Your task to perform on an android device: toggle data saver in the chrome app Image 0: 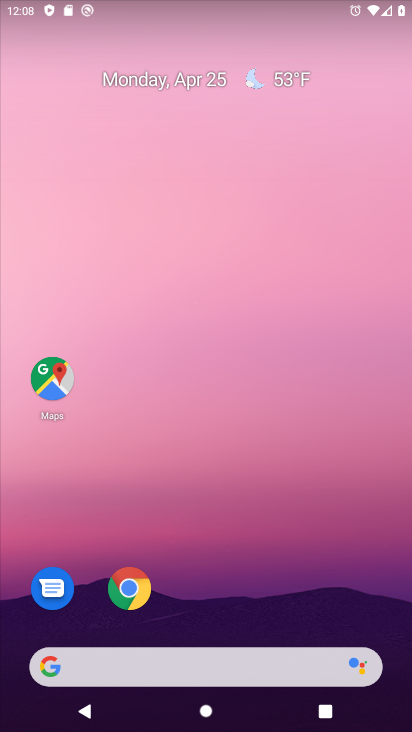
Step 0: drag from (301, 600) to (257, 249)
Your task to perform on an android device: toggle data saver in the chrome app Image 1: 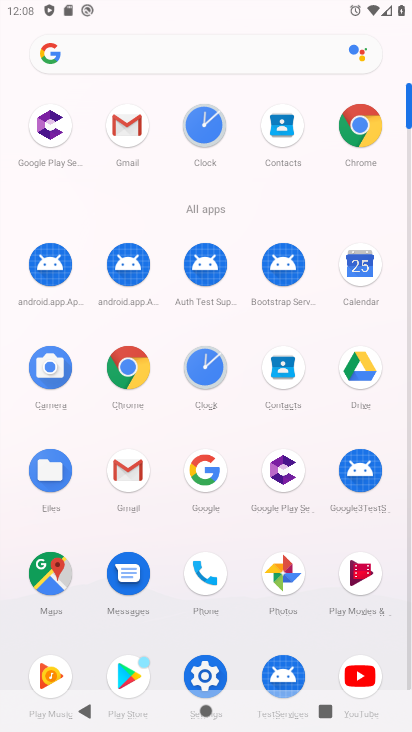
Step 1: click (373, 121)
Your task to perform on an android device: toggle data saver in the chrome app Image 2: 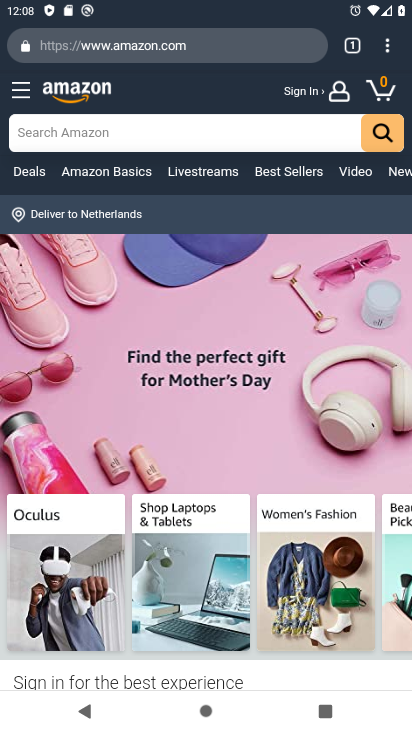
Step 2: drag from (388, 65) to (222, 595)
Your task to perform on an android device: toggle data saver in the chrome app Image 3: 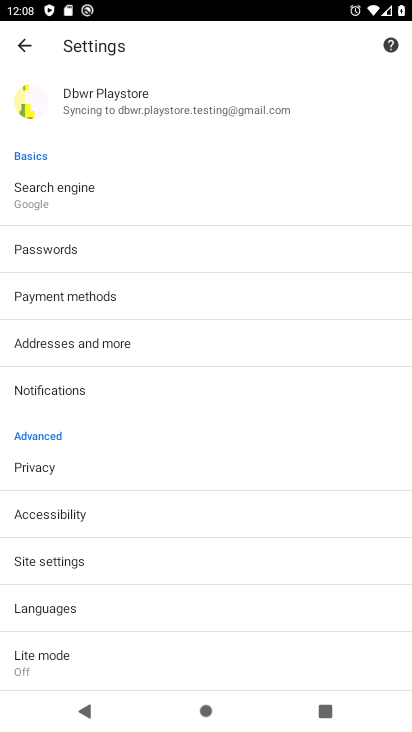
Step 3: click (207, 663)
Your task to perform on an android device: toggle data saver in the chrome app Image 4: 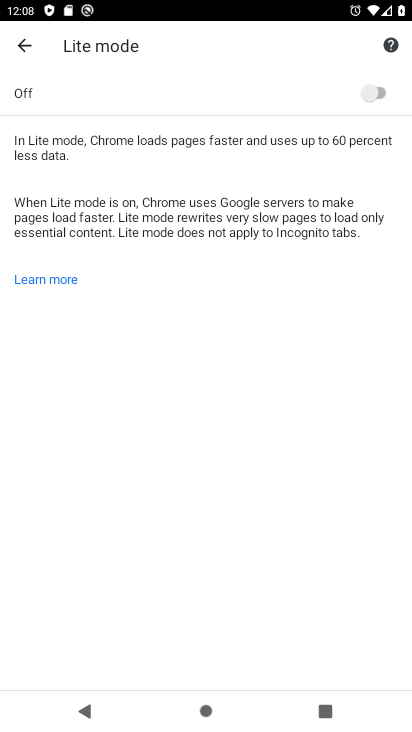
Step 4: click (370, 98)
Your task to perform on an android device: toggle data saver in the chrome app Image 5: 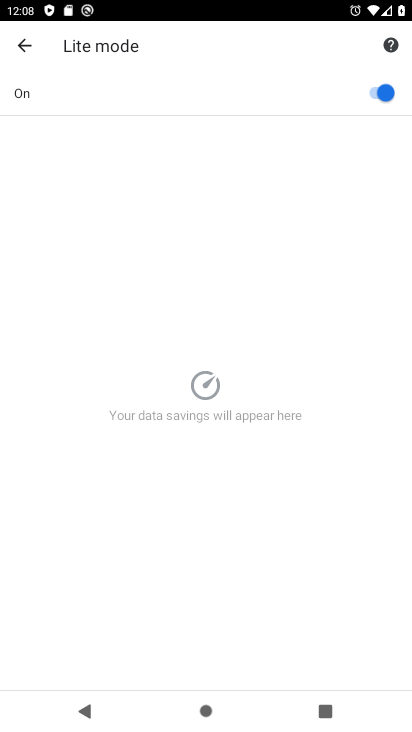
Step 5: task complete